Your task to perform on an android device: turn off airplane mode Image 0: 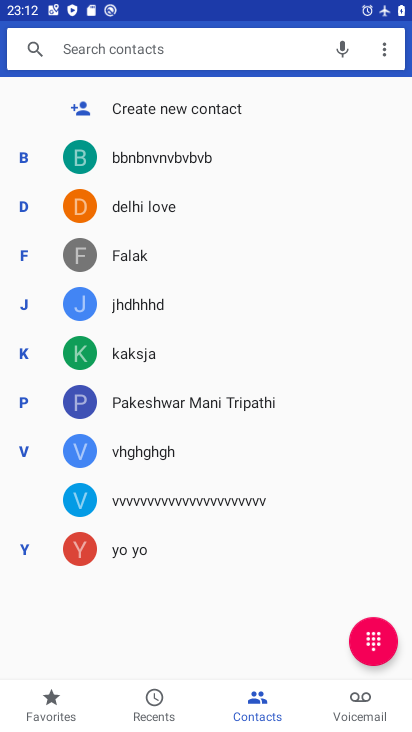
Step 0: press home button
Your task to perform on an android device: turn off airplane mode Image 1: 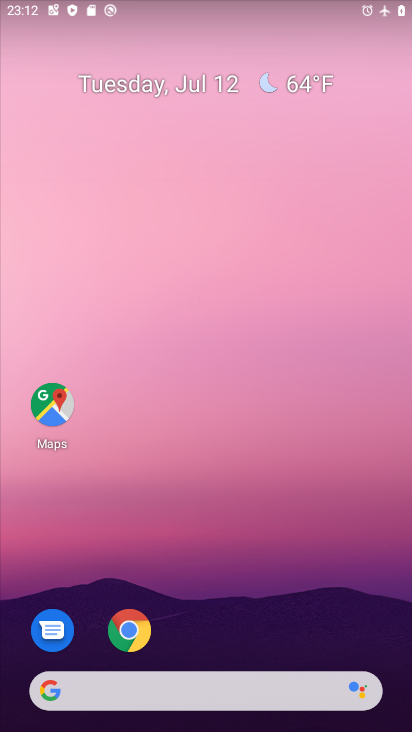
Step 1: drag from (213, 674) to (82, 108)
Your task to perform on an android device: turn off airplane mode Image 2: 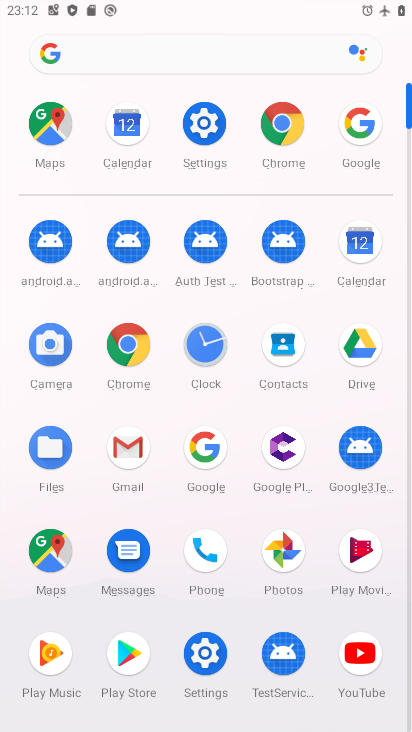
Step 2: click (234, 126)
Your task to perform on an android device: turn off airplane mode Image 3: 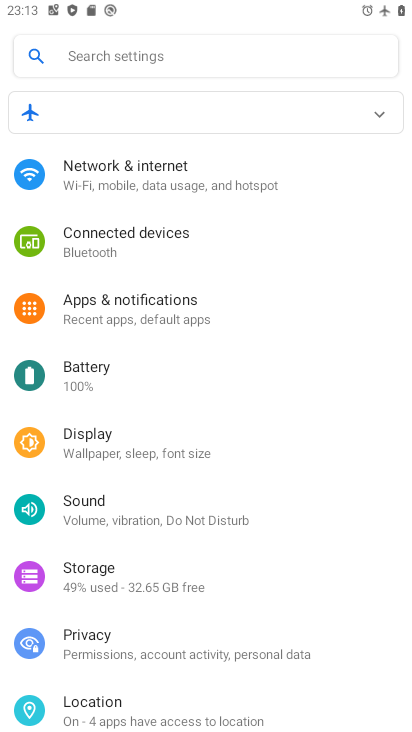
Step 3: click (142, 190)
Your task to perform on an android device: turn off airplane mode Image 4: 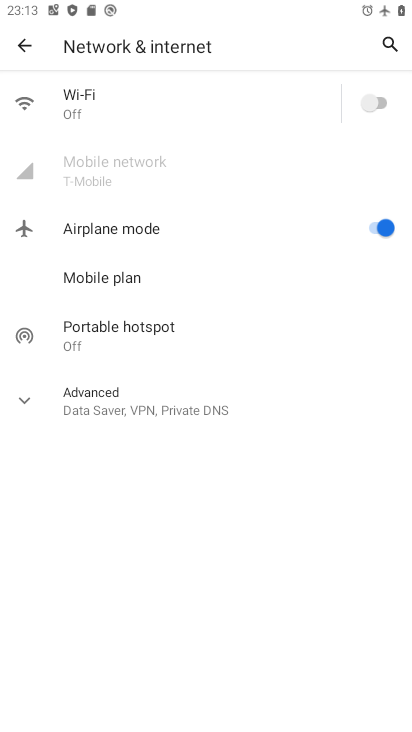
Step 4: click (395, 218)
Your task to perform on an android device: turn off airplane mode Image 5: 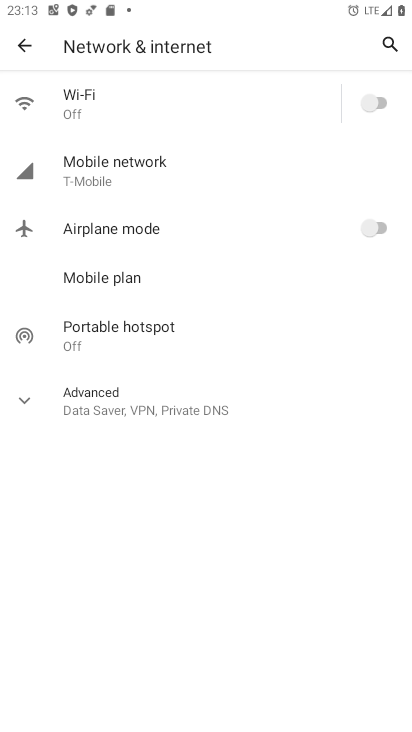
Step 5: task complete